Your task to perform on an android device: Open battery settings Image 0: 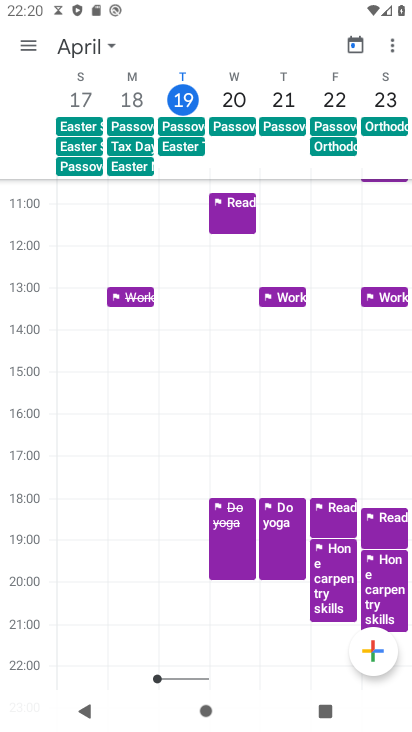
Step 0: press home button
Your task to perform on an android device: Open battery settings Image 1: 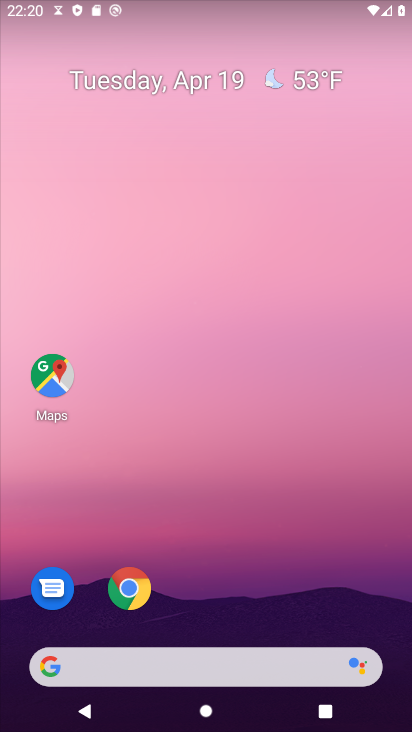
Step 1: drag from (246, 578) to (232, 47)
Your task to perform on an android device: Open battery settings Image 2: 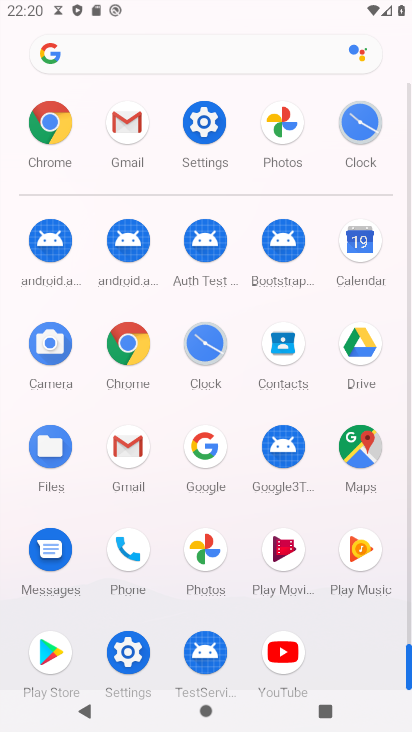
Step 2: click (203, 126)
Your task to perform on an android device: Open battery settings Image 3: 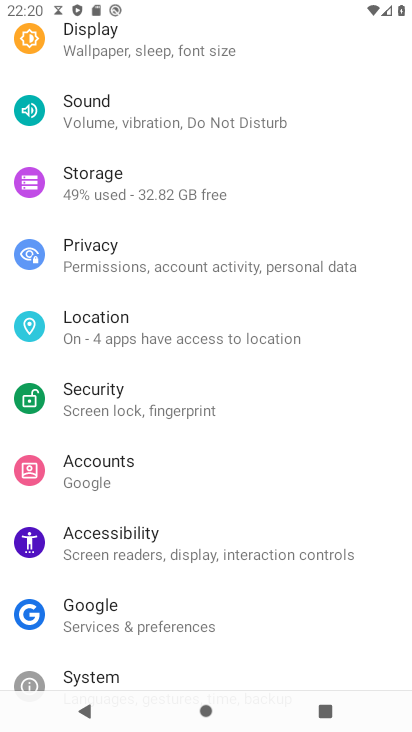
Step 3: drag from (202, 315) to (257, 415)
Your task to perform on an android device: Open battery settings Image 4: 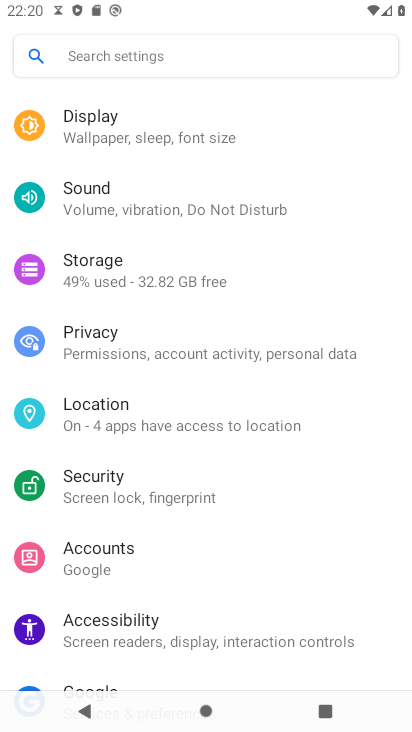
Step 4: drag from (200, 272) to (205, 342)
Your task to perform on an android device: Open battery settings Image 5: 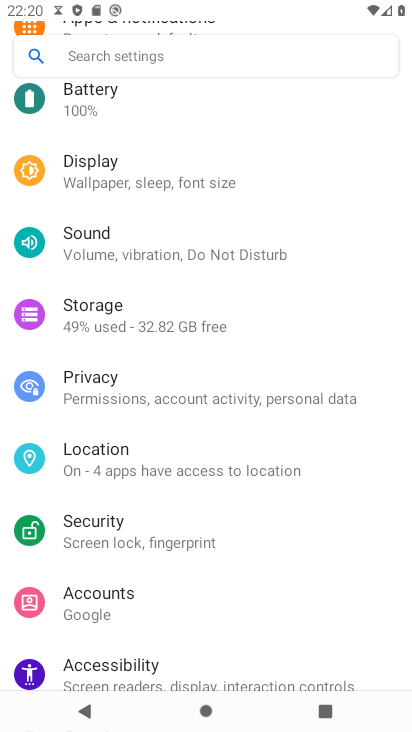
Step 5: drag from (203, 240) to (207, 349)
Your task to perform on an android device: Open battery settings Image 6: 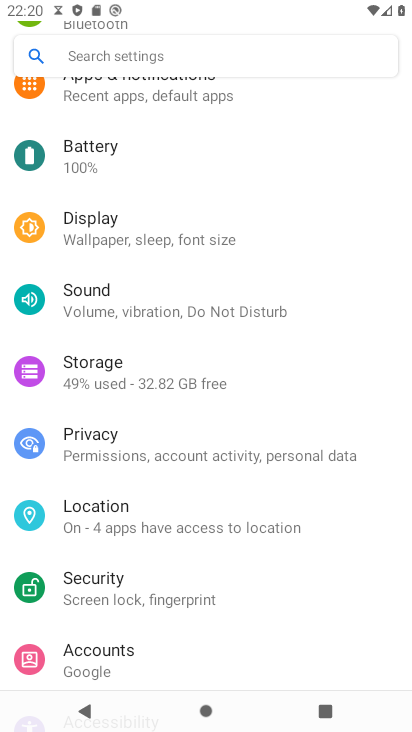
Step 6: click (88, 151)
Your task to perform on an android device: Open battery settings Image 7: 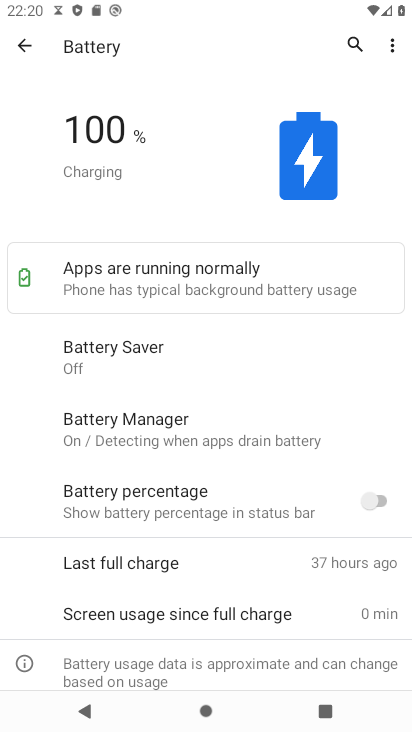
Step 7: task complete